Your task to perform on an android device: turn on priority inbox in the gmail app Image 0: 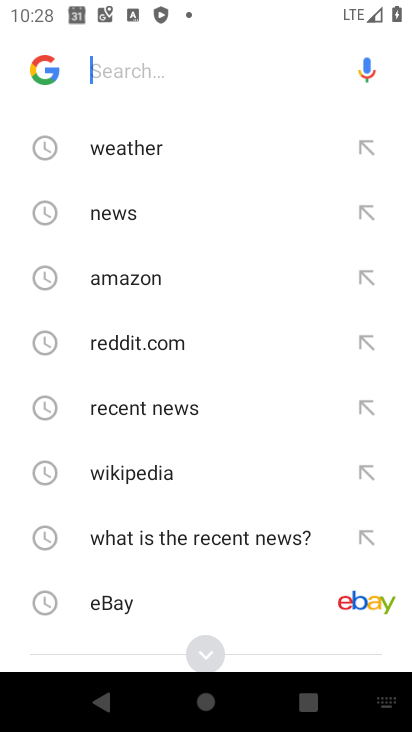
Step 0: press home button
Your task to perform on an android device: turn on priority inbox in the gmail app Image 1: 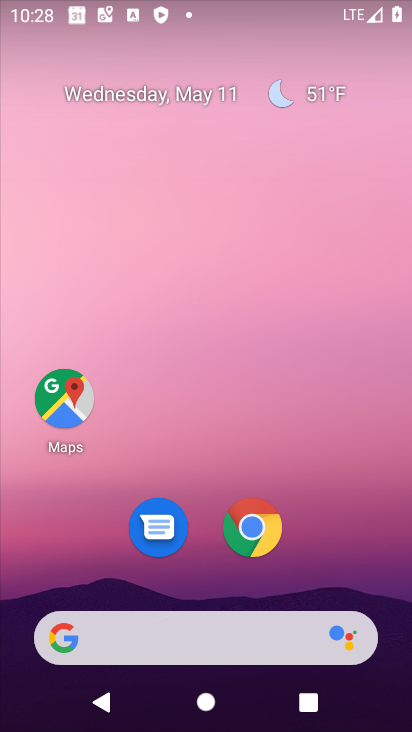
Step 1: drag from (369, 476) to (400, 124)
Your task to perform on an android device: turn on priority inbox in the gmail app Image 2: 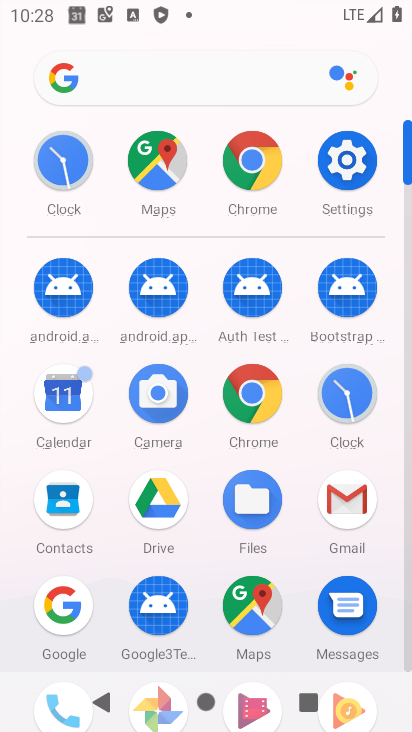
Step 2: click (350, 504)
Your task to perform on an android device: turn on priority inbox in the gmail app Image 3: 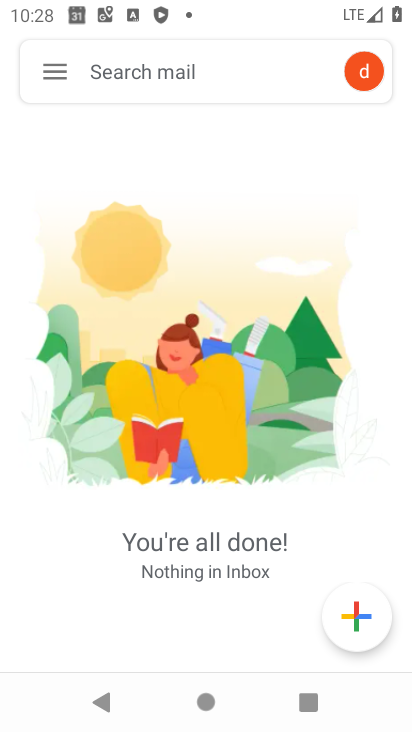
Step 3: click (59, 73)
Your task to perform on an android device: turn on priority inbox in the gmail app Image 4: 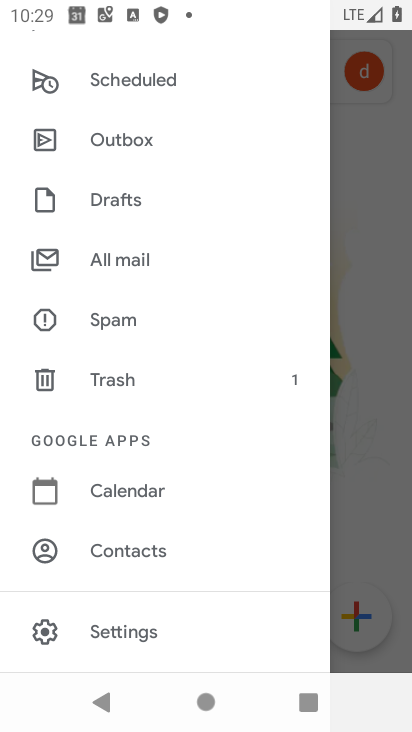
Step 4: click (71, 645)
Your task to perform on an android device: turn on priority inbox in the gmail app Image 5: 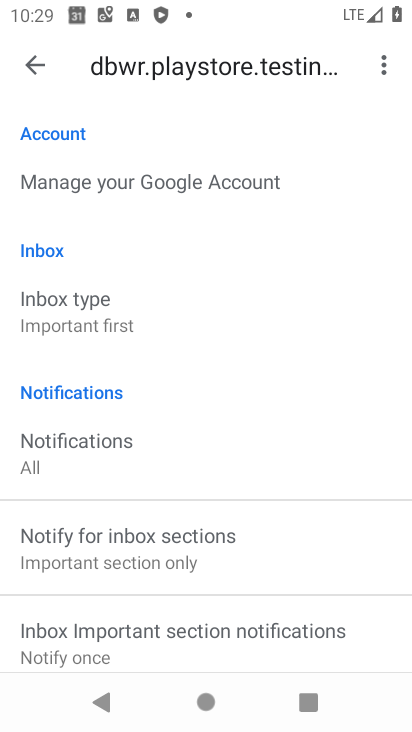
Step 5: click (61, 329)
Your task to perform on an android device: turn on priority inbox in the gmail app Image 6: 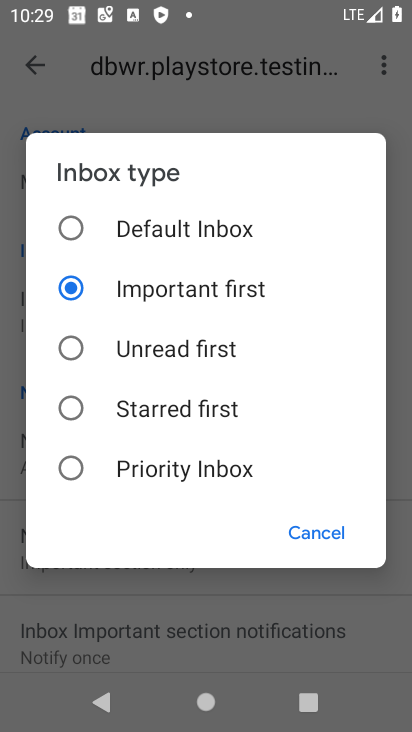
Step 6: click (103, 478)
Your task to perform on an android device: turn on priority inbox in the gmail app Image 7: 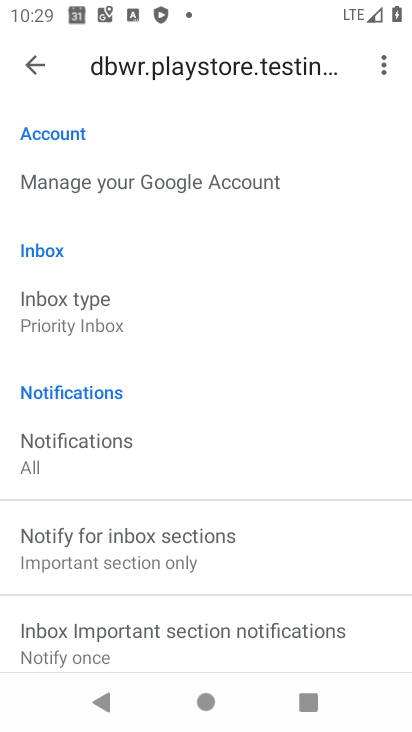
Step 7: task complete